Your task to perform on an android device: stop showing notifications on the lock screen Image 0: 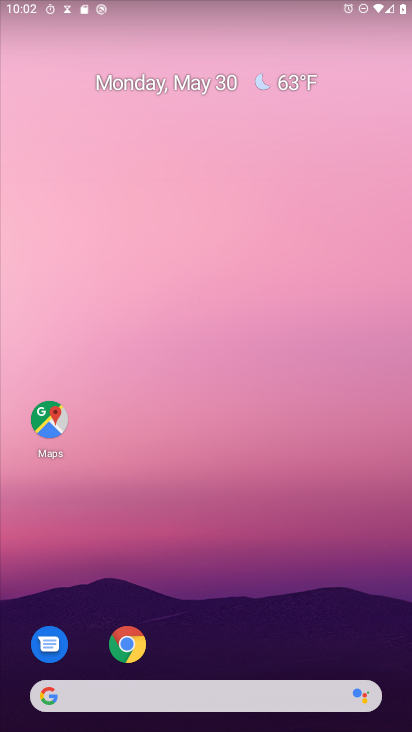
Step 0: drag from (203, 639) to (253, 8)
Your task to perform on an android device: stop showing notifications on the lock screen Image 1: 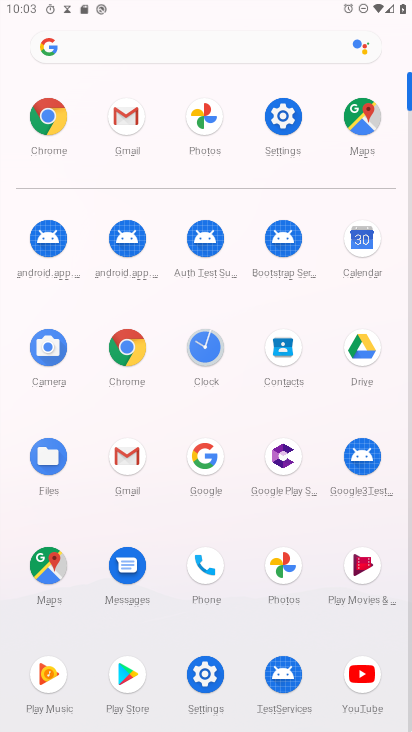
Step 1: click (274, 119)
Your task to perform on an android device: stop showing notifications on the lock screen Image 2: 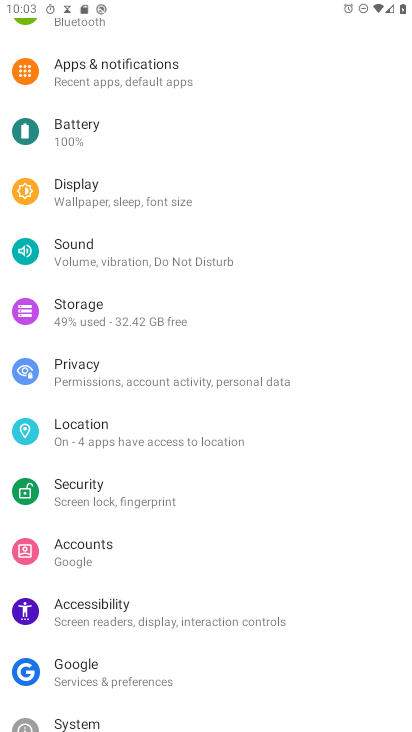
Step 2: drag from (154, 289) to (171, 366)
Your task to perform on an android device: stop showing notifications on the lock screen Image 3: 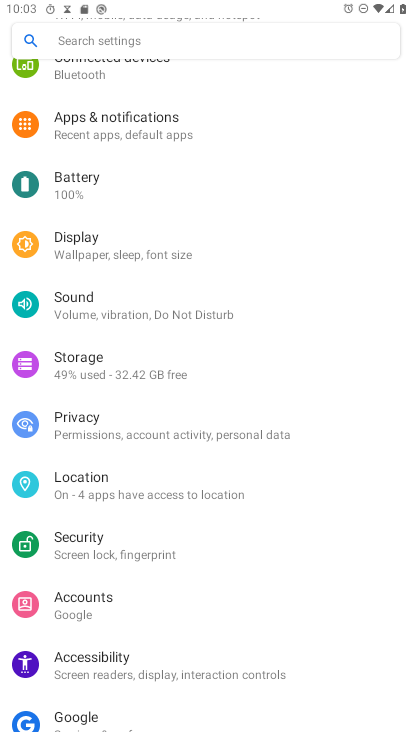
Step 3: click (106, 123)
Your task to perform on an android device: stop showing notifications on the lock screen Image 4: 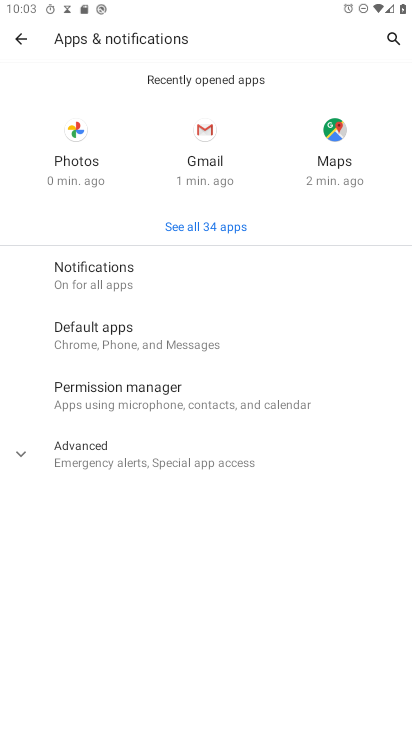
Step 4: click (133, 278)
Your task to perform on an android device: stop showing notifications on the lock screen Image 5: 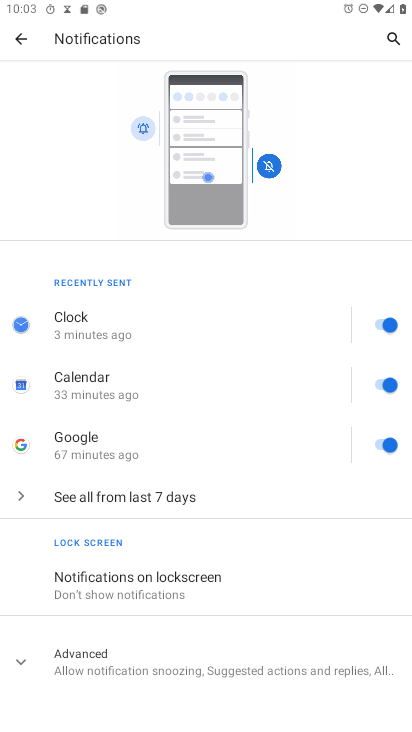
Step 5: click (122, 589)
Your task to perform on an android device: stop showing notifications on the lock screen Image 6: 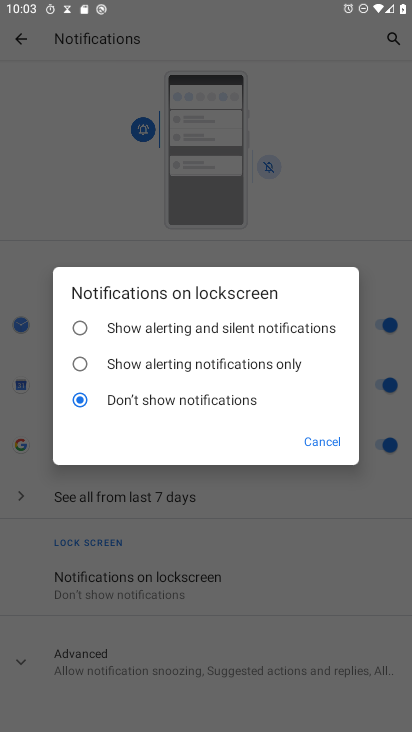
Step 6: task complete